Your task to perform on an android device: Go to sound settings Image 0: 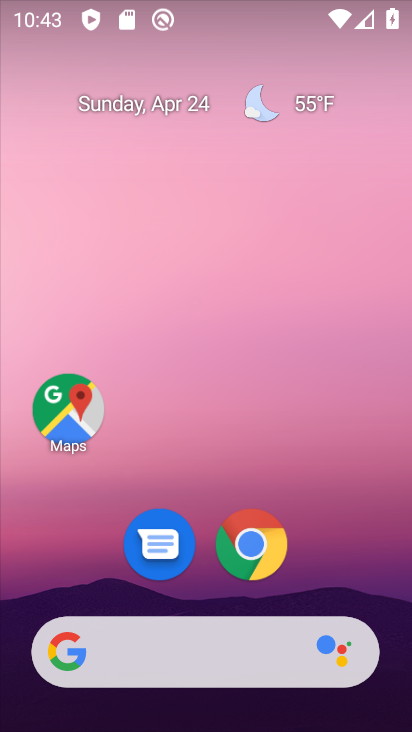
Step 0: drag from (348, 554) to (308, 169)
Your task to perform on an android device: Go to sound settings Image 1: 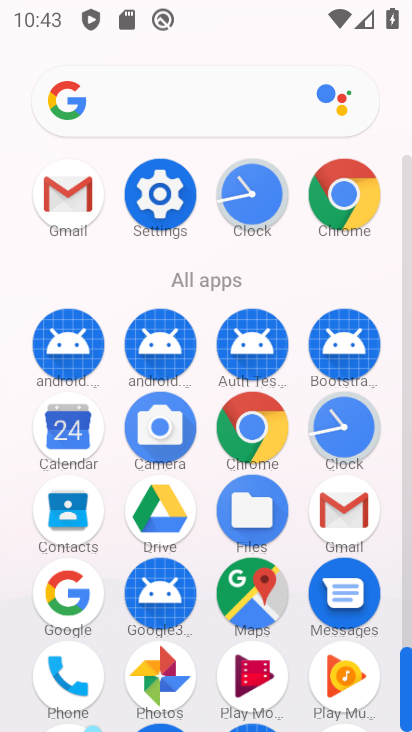
Step 1: click (146, 196)
Your task to perform on an android device: Go to sound settings Image 2: 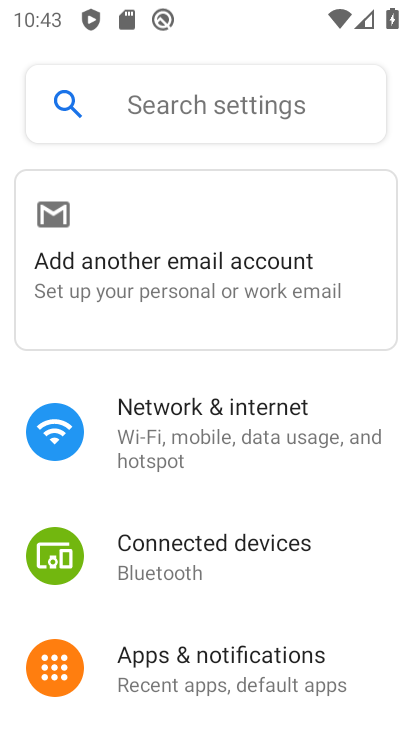
Step 2: drag from (372, 631) to (368, 105)
Your task to perform on an android device: Go to sound settings Image 3: 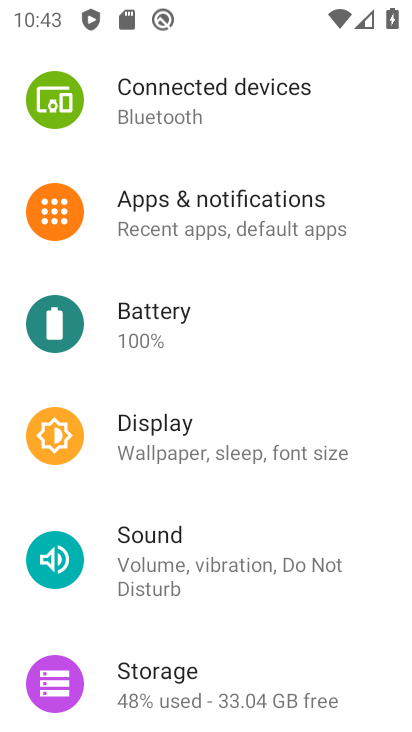
Step 3: click (146, 559)
Your task to perform on an android device: Go to sound settings Image 4: 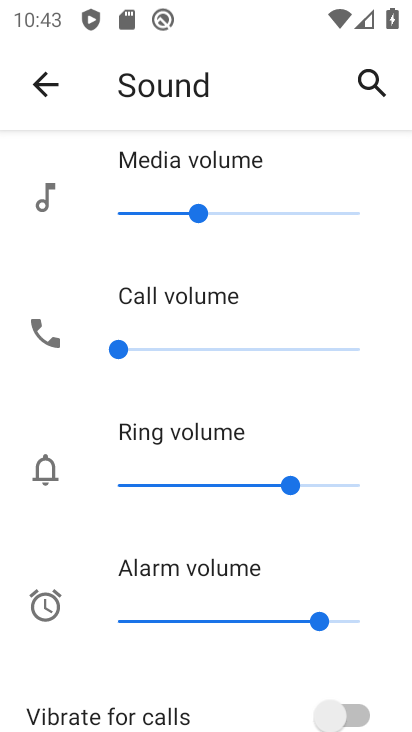
Step 4: task complete